Your task to perform on an android device: toggle notifications settings in the gmail app Image 0: 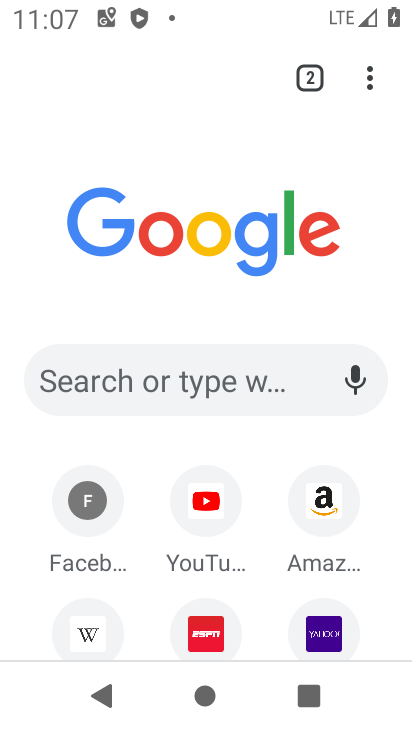
Step 0: press back button
Your task to perform on an android device: toggle notifications settings in the gmail app Image 1: 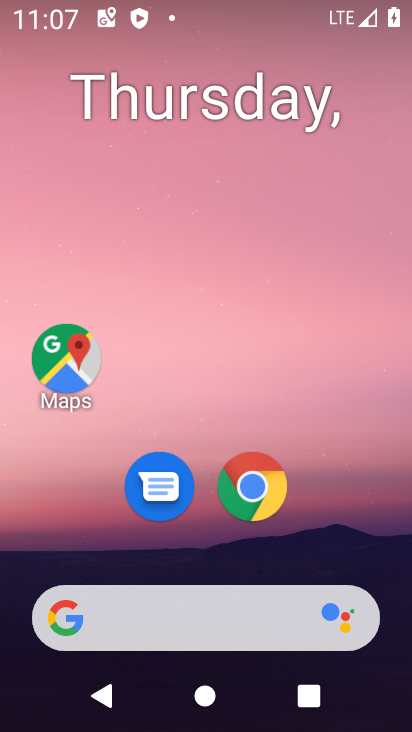
Step 1: drag from (248, 548) to (293, 88)
Your task to perform on an android device: toggle notifications settings in the gmail app Image 2: 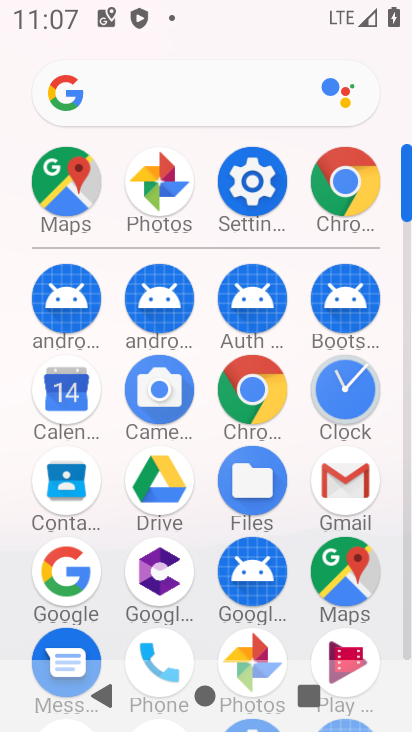
Step 2: click (348, 470)
Your task to perform on an android device: toggle notifications settings in the gmail app Image 3: 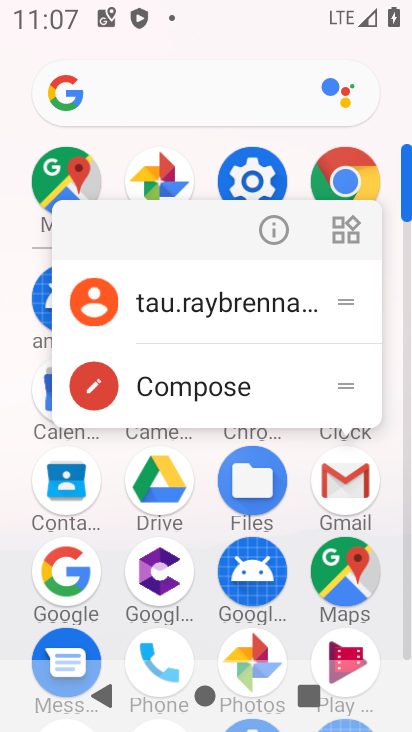
Step 3: click (279, 231)
Your task to perform on an android device: toggle notifications settings in the gmail app Image 4: 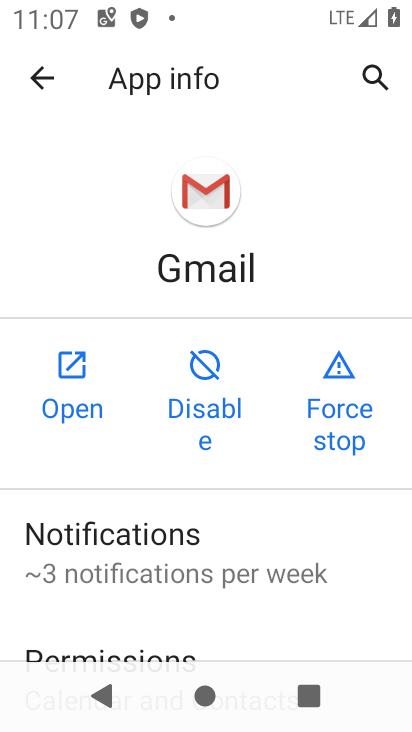
Step 4: click (159, 557)
Your task to perform on an android device: toggle notifications settings in the gmail app Image 5: 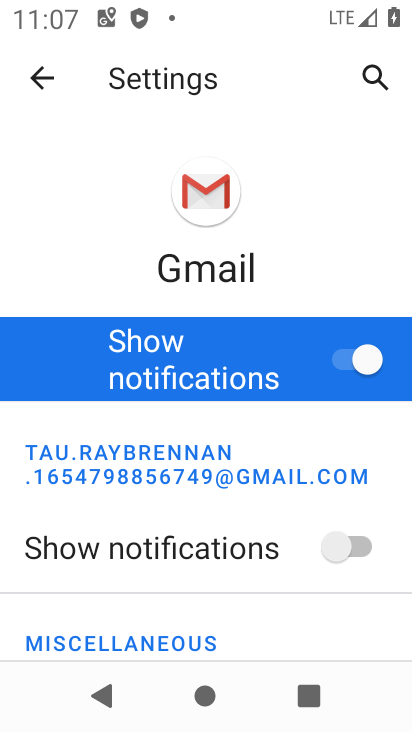
Step 5: click (375, 348)
Your task to perform on an android device: toggle notifications settings in the gmail app Image 6: 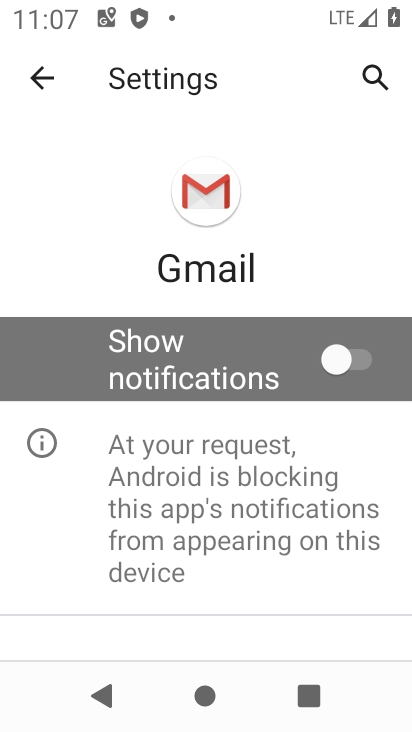
Step 6: task complete